Your task to perform on an android device: star an email in the gmail app Image 0: 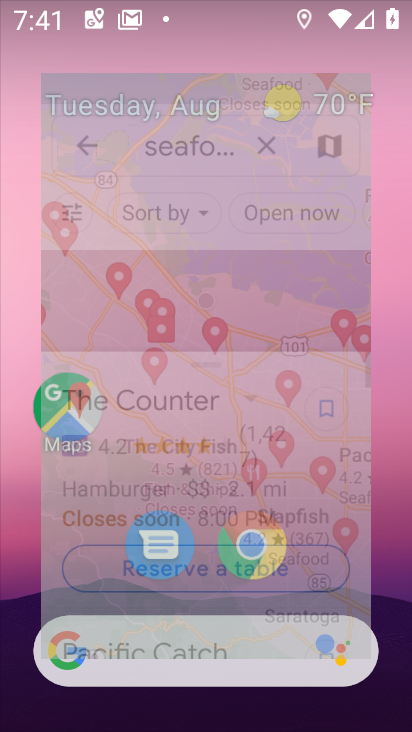
Step 0: drag from (255, 588) to (276, 223)
Your task to perform on an android device: star an email in the gmail app Image 1: 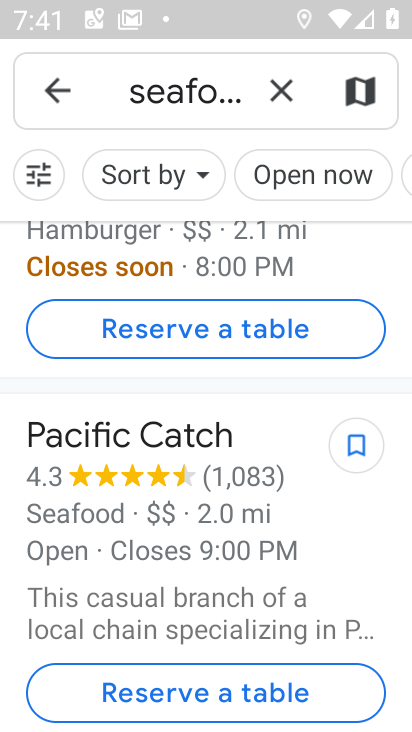
Step 1: press home button
Your task to perform on an android device: star an email in the gmail app Image 2: 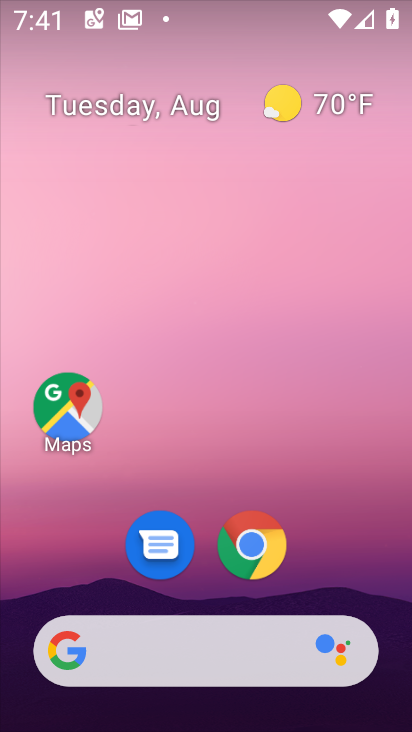
Step 2: drag from (222, 622) to (257, 42)
Your task to perform on an android device: star an email in the gmail app Image 3: 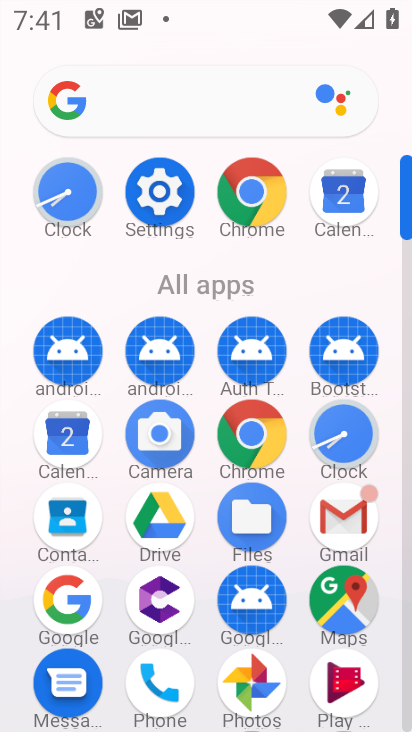
Step 3: click (342, 535)
Your task to perform on an android device: star an email in the gmail app Image 4: 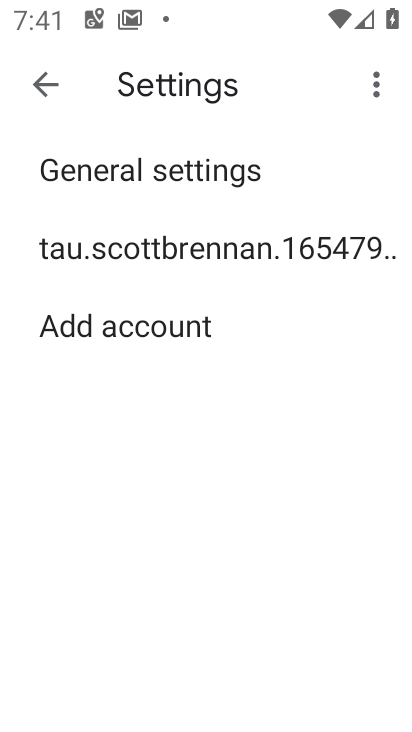
Step 4: click (54, 83)
Your task to perform on an android device: star an email in the gmail app Image 5: 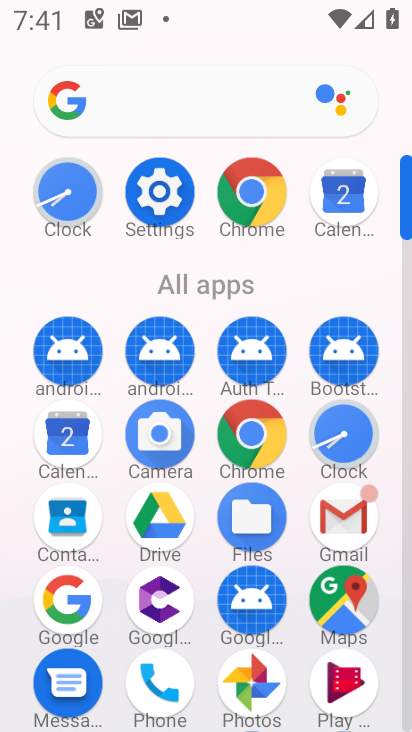
Step 5: click (345, 544)
Your task to perform on an android device: star an email in the gmail app Image 6: 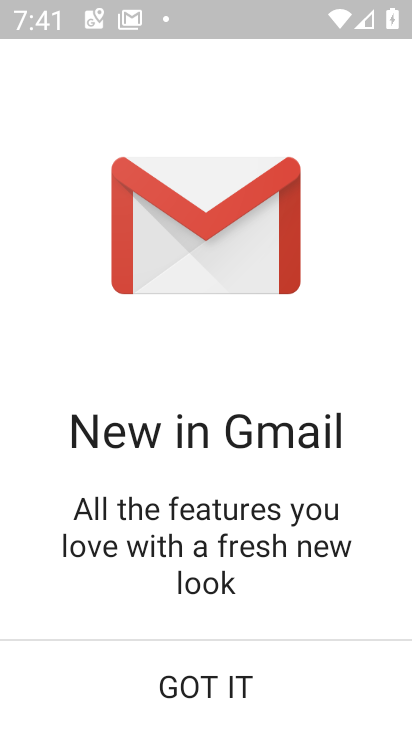
Step 6: click (209, 685)
Your task to perform on an android device: star an email in the gmail app Image 7: 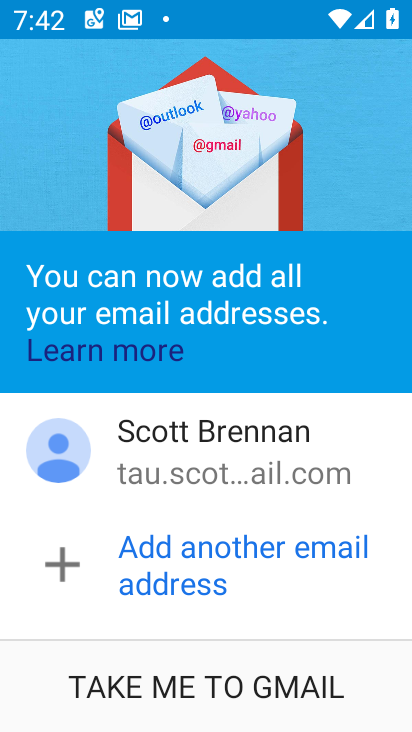
Step 7: click (208, 677)
Your task to perform on an android device: star an email in the gmail app Image 8: 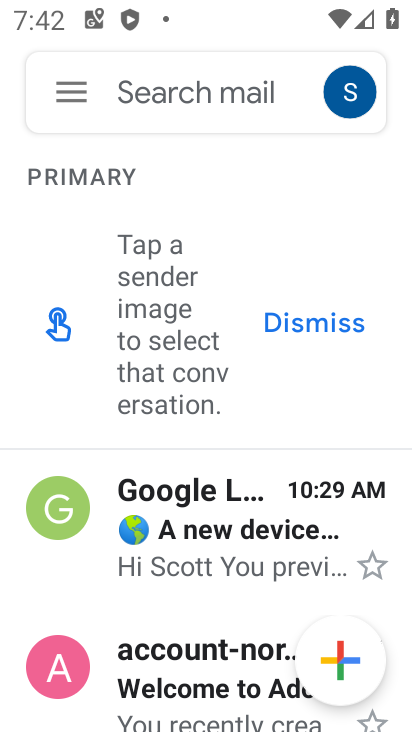
Step 8: click (175, 533)
Your task to perform on an android device: star an email in the gmail app Image 9: 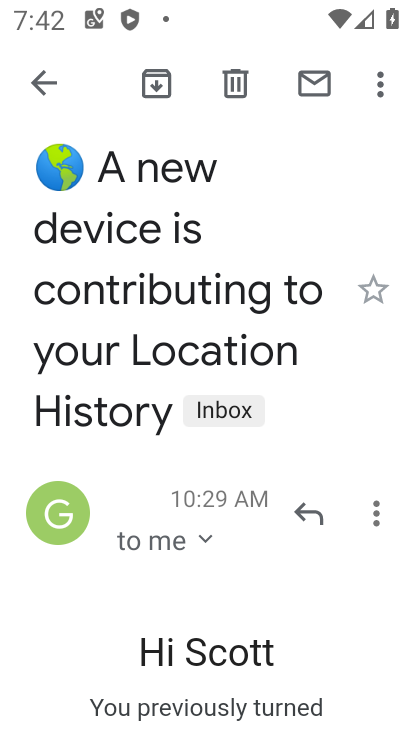
Step 9: click (370, 294)
Your task to perform on an android device: star an email in the gmail app Image 10: 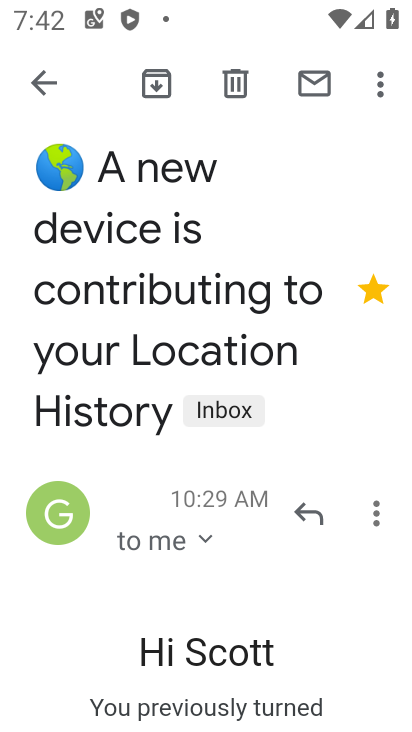
Step 10: task complete